Your task to perform on an android device: turn on wifi Image 0: 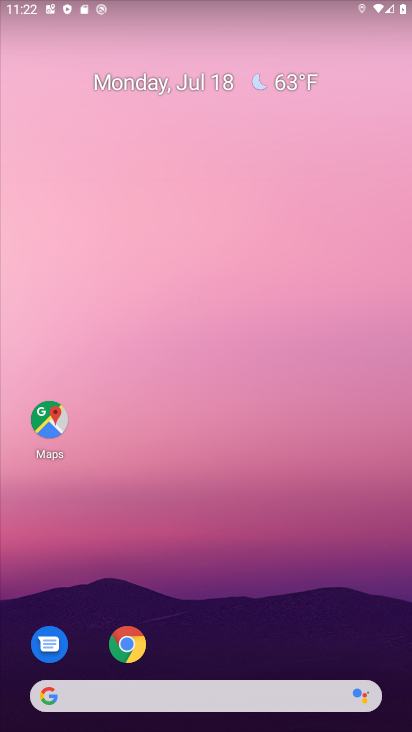
Step 0: drag from (193, 727) to (183, 174)
Your task to perform on an android device: turn on wifi Image 1: 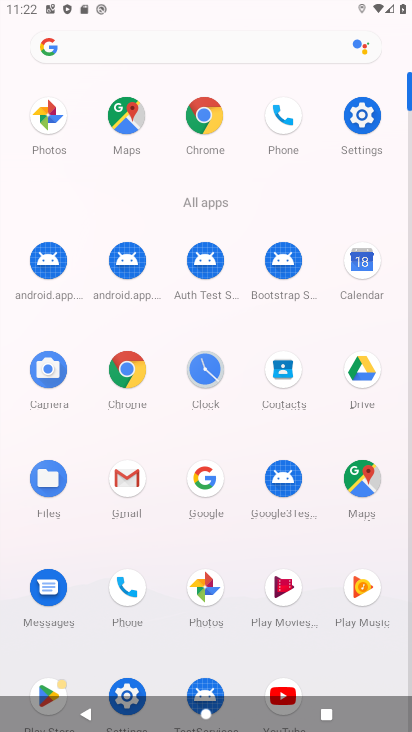
Step 1: click (363, 115)
Your task to perform on an android device: turn on wifi Image 2: 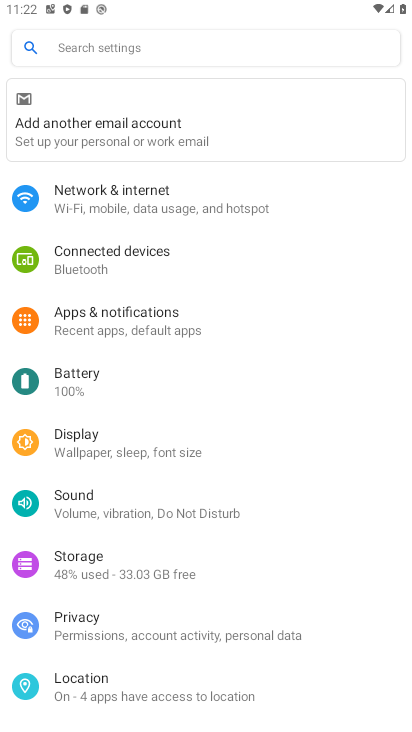
Step 2: click (134, 205)
Your task to perform on an android device: turn on wifi Image 3: 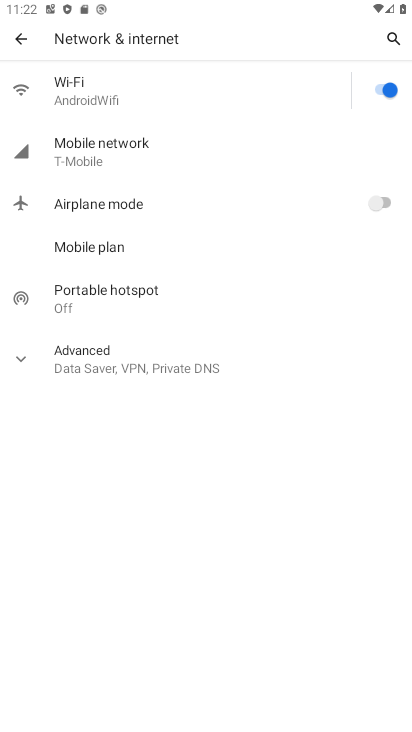
Step 3: task complete